Your task to perform on an android device: find snoozed emails in the gmail app Image 0: 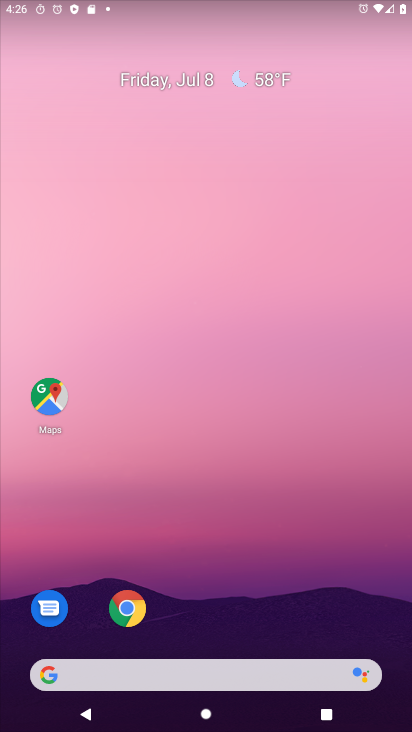
Step 0: drag from (220, 586) to (272, 1)
Your task to perform on an android device: find snoozed emails in the gmail app Image 1: 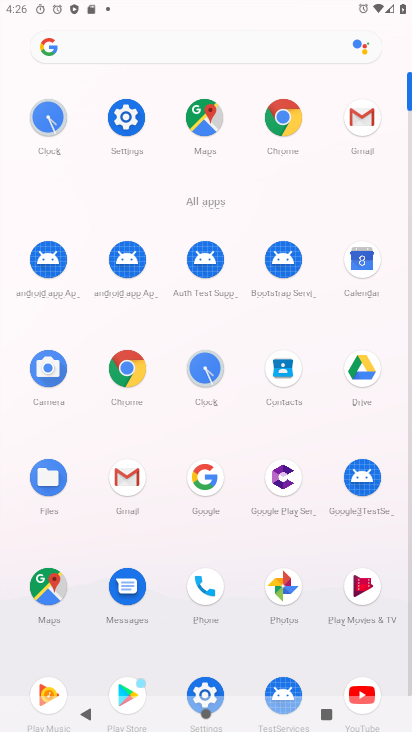
Step 1: click (121, 482)
Your task to perform on an android device: find snoozed emails in the gmail app Image 2: 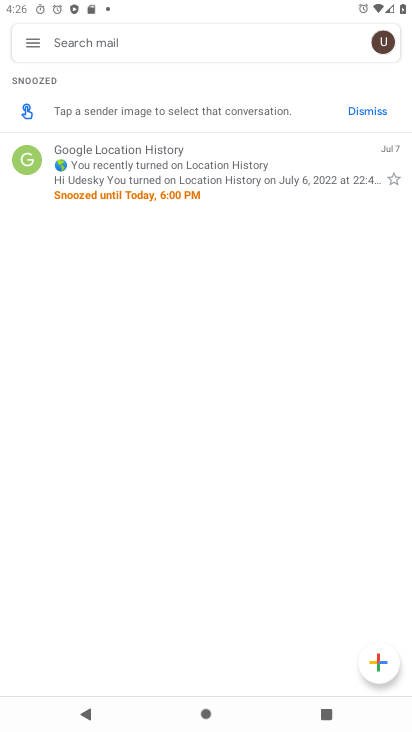
Step 2: task complete